Your task to perform on an android device: Go to Android settings Image 0: 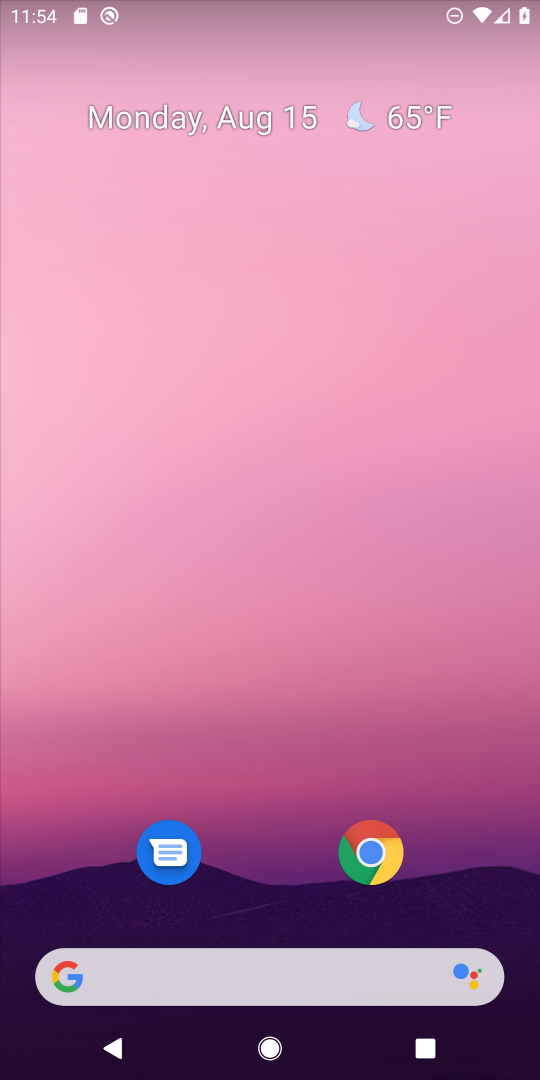
Step 0: drag from (315, 772) to (456, 14)
Your task to perform on an android device: Go to Android settings Image 1: 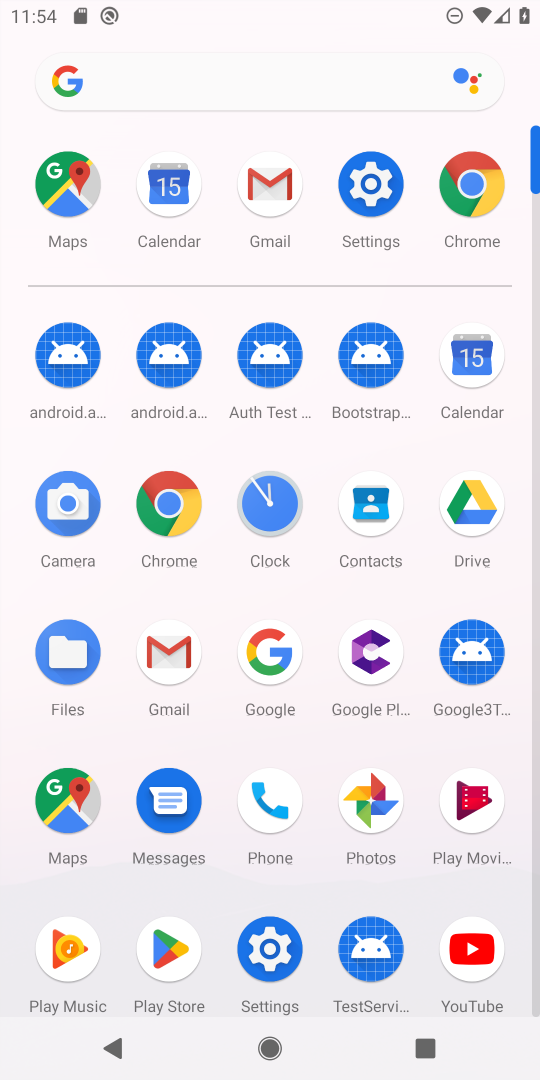
Step 1: click (375, 184)
Your task to perform on an android device: Go to Android settings Image 2: 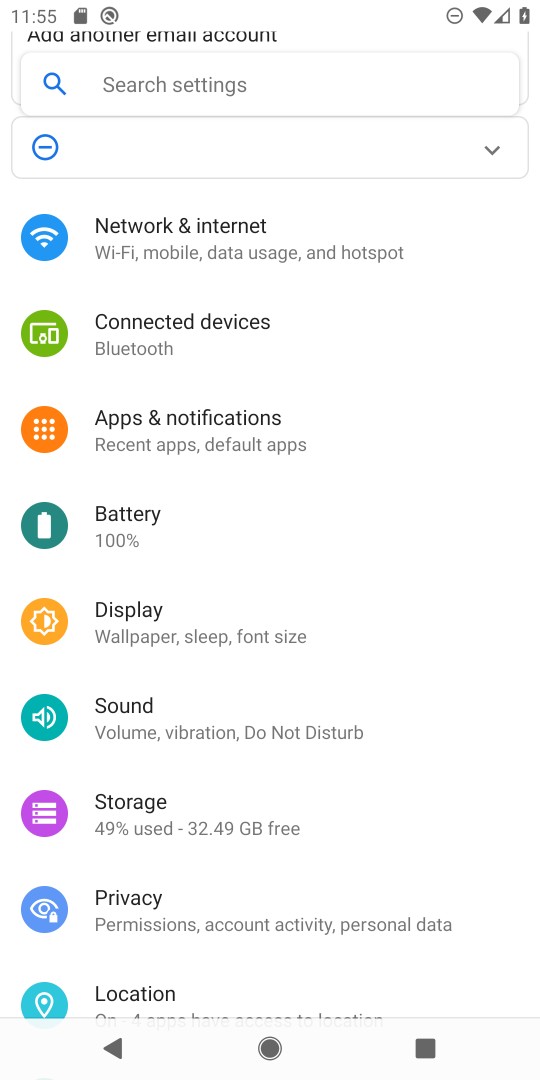
Step 2: drag from (213, 846) to (302, 242)
Your task to perform on an android device: Go to Android settings Image 3: 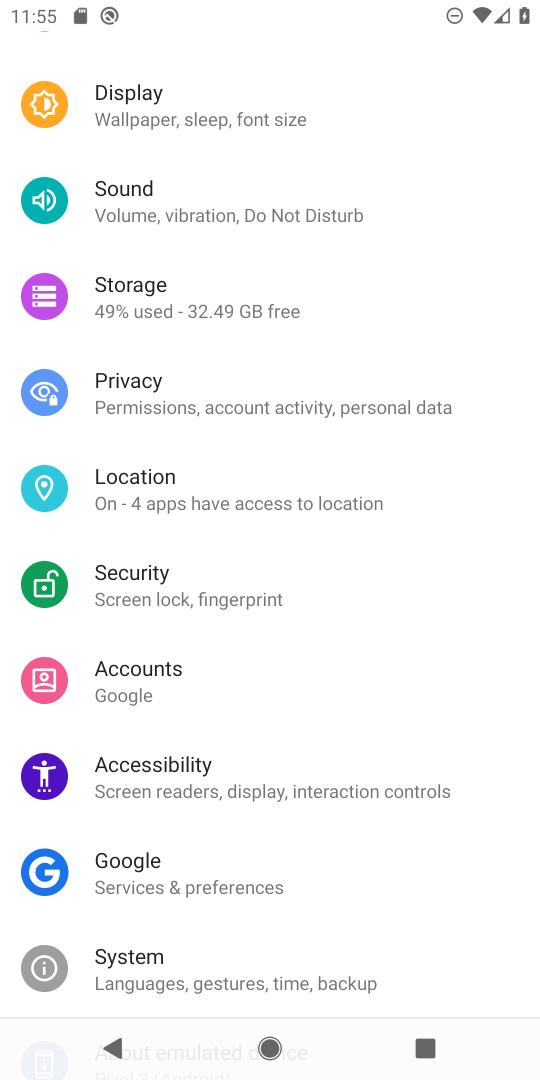
Step 3: drag from (171, 978) to (283, 1)
Your task to perform on an android device: Go to Android settings Image 4: 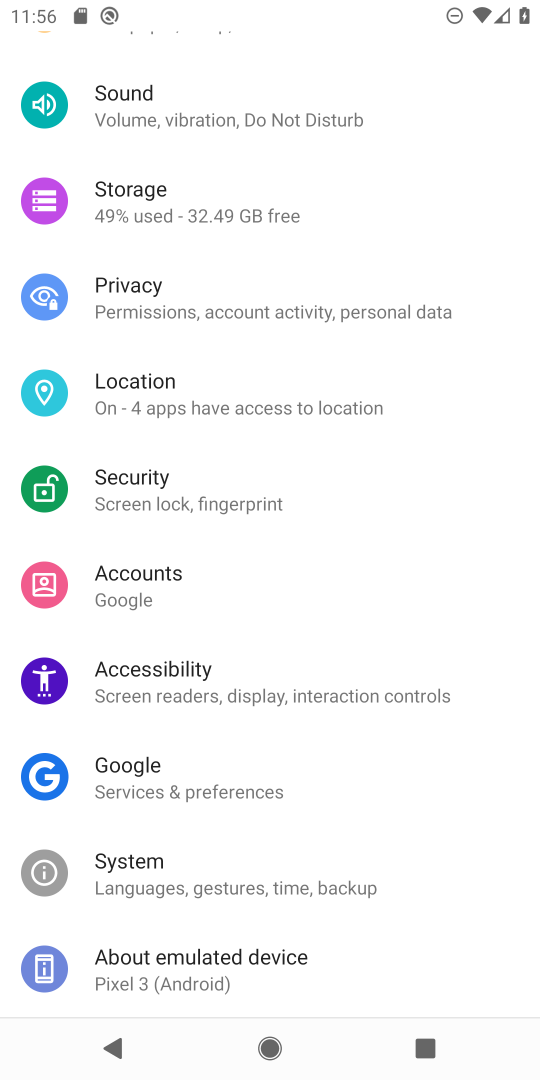
Step 4: drag from (222, 934) to (331, 4)
Your task to perform on an android device: Go to Android settings Image 5: 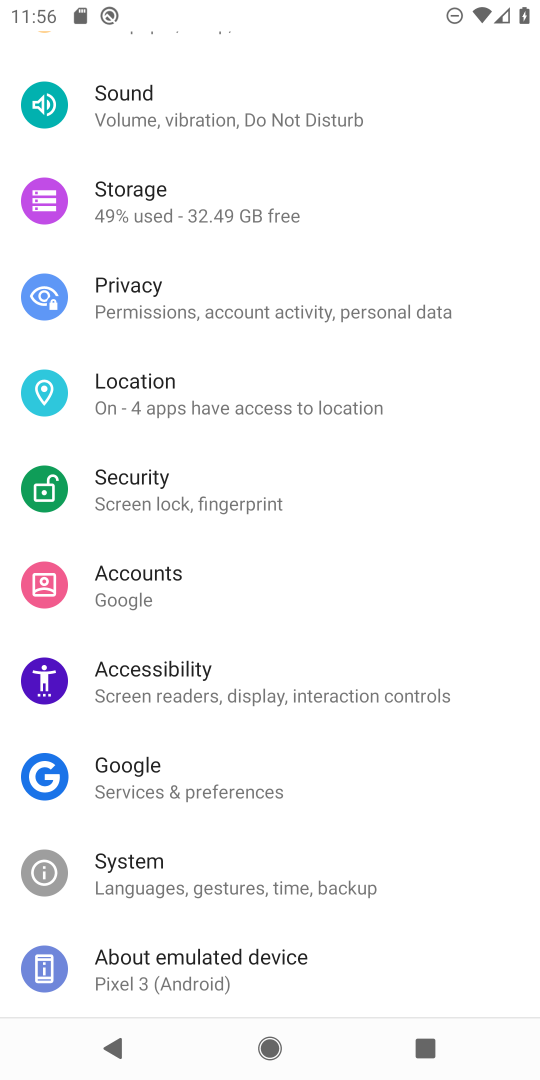
Step 5: click (175, 967)
Your task to perform on an android device: Go to Android settings Image 6: 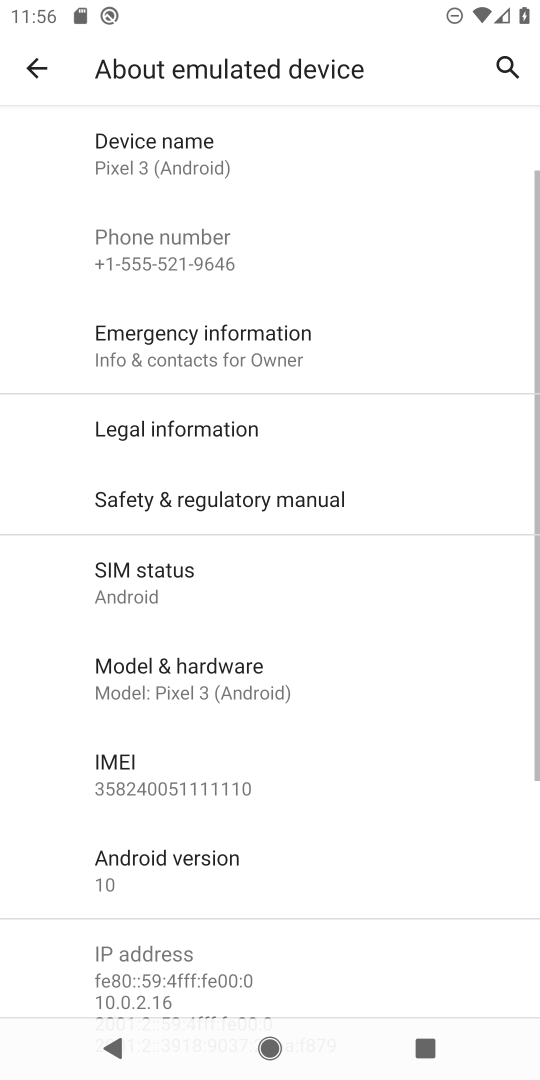
Step 6: task complete